Your task to perform on an android device: open chrome privacy settings Image 0: 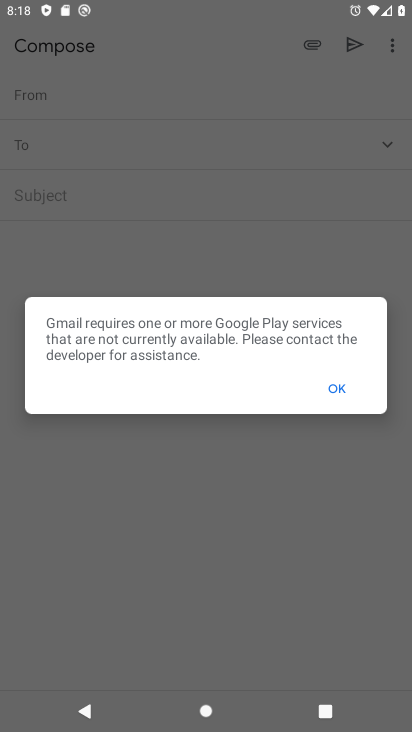
Step 0: drag from (359, 555) to (229, 159)
Your task to perform on an android device: open chrome privacy settings Image 1: 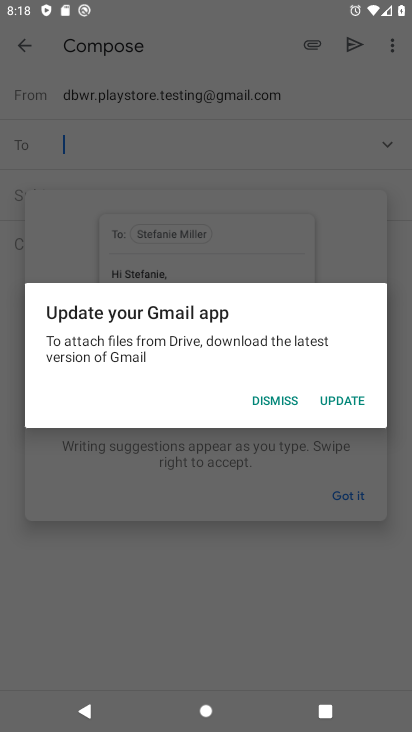
Step 1: press home button
Your task to perform on an android device: open chrome privacy settings Image 2: 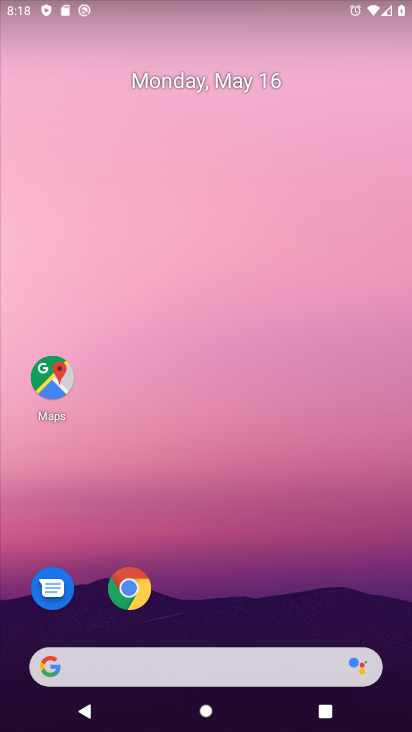
Step 2: drag from (250, 610) to (142, 34)
Your task to perform on an android device: open chrome privacy settings Image 3: 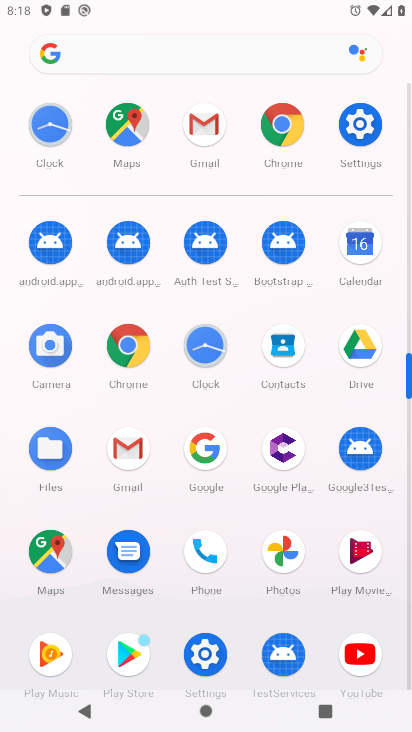
Step 3: drag from (290, 574) to (109, 26)
Your task to perform on an android device: open chrome privacy settings Image 4: 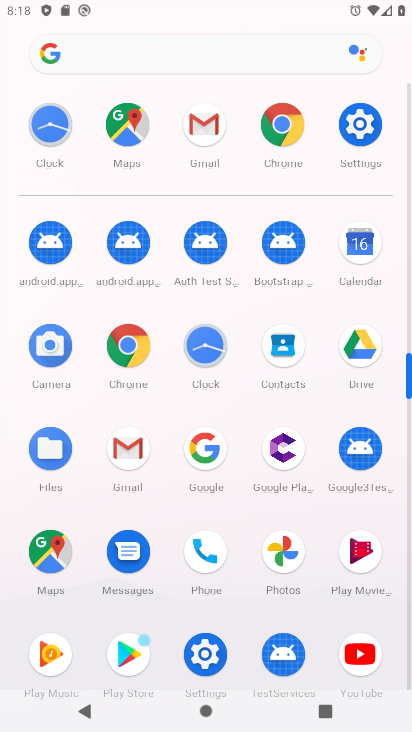
Step 4: click (283, 125)
Your task to perform on an android device: open chrome privacy settings Image 5: 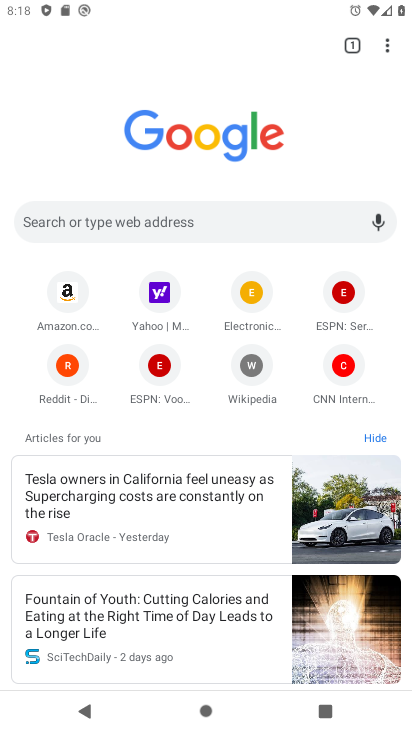
Step 5: click (387, 50)
Your task to perform on an android device: open chrome privacy settings Image 6: 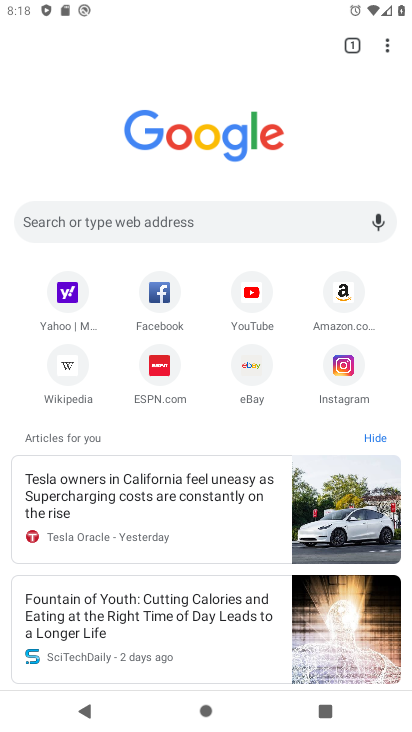
Step 6: click (388, 48)
Your task to perform on an android device: open chrome privacy settings Image 7: 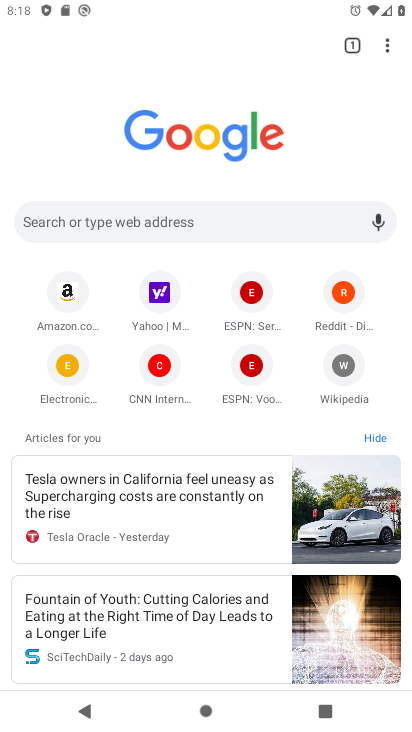
Step 7: click (389, 46)
Your task to perform on an android device: open chrome privacy settings Image 8: 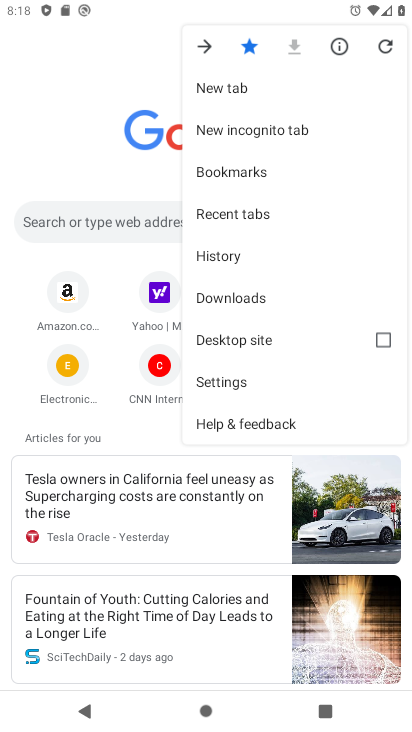
Step 8: click (221, 379)
Your task to perform on an android device: open chrome privacy settings Image 9: 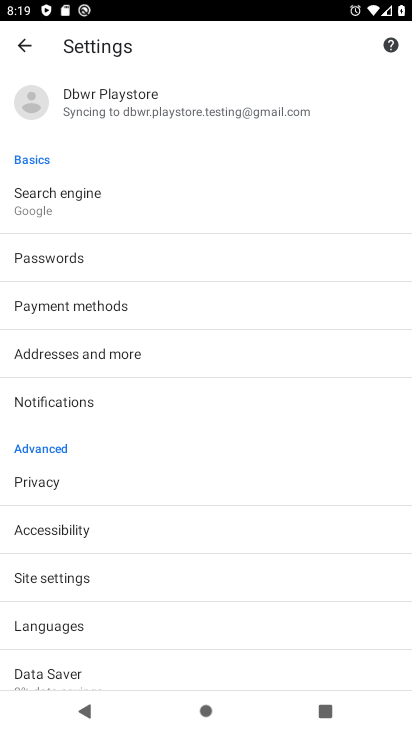
Step 9: click (48, 488)
Your task to perform on an android device: open chrome privacy settings Image 10: 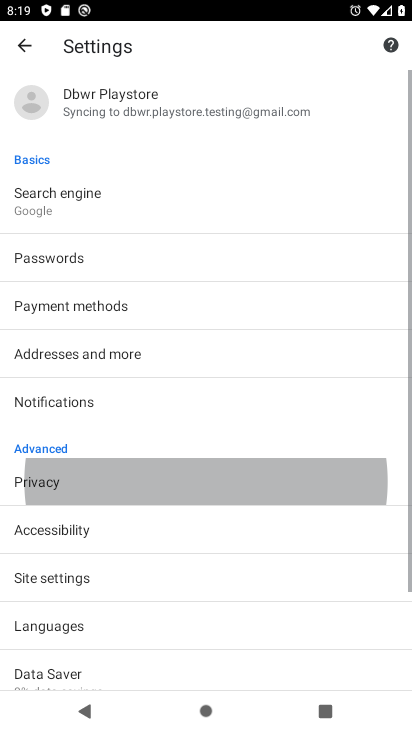
Step 10: click (48, 488)
Your task to perform on an android device: open chrome privacy settings Image 11: 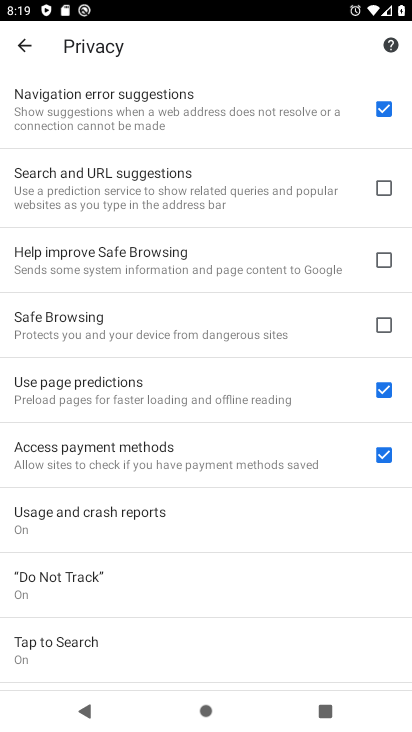
Step 11: task complete